Your task to perform on an android device: Go to privacy settings Image 0: 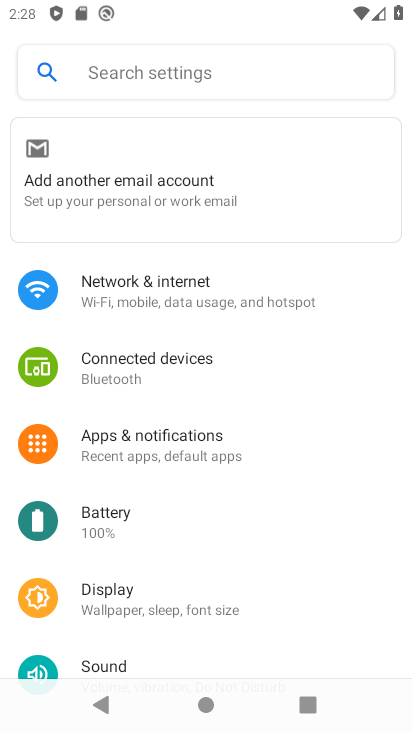
Step 0: press home button
Your task to perform on an android device: Go to privacy settings Image 1: 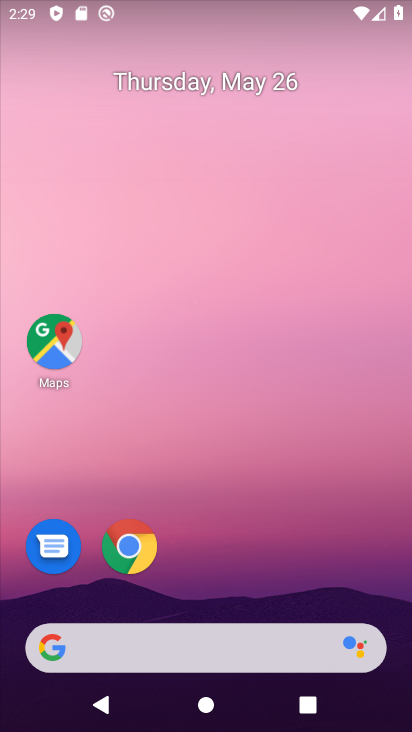
Step 1: click (120, 545)
Your task to perform on an android device: Go to privacy settings Image 2: 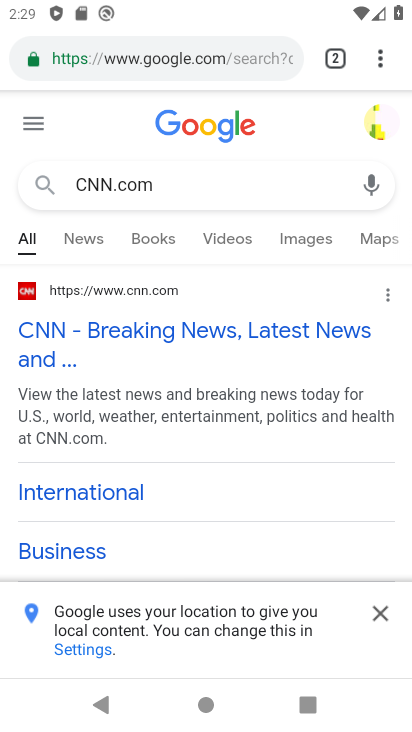
Step 2: click (379, 53)
Your task to perform on an android device: Go to privacy settings Image 3: 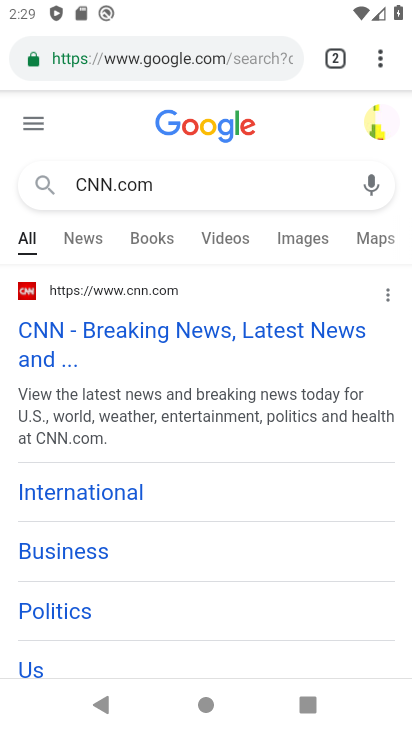
Step 3: click (379, 53)
Your task to perform on an android device: Go to privacy settings Image 4: 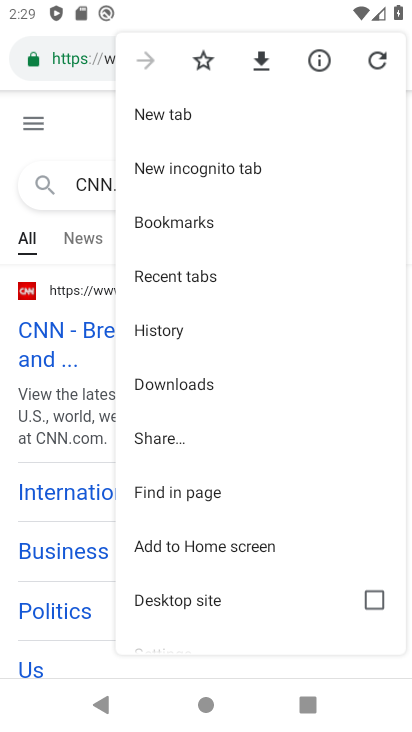
Step 4: drag from (285, 626) to (301, 368)
Your task to perform on an android device: Go to privacy settings Image 5: 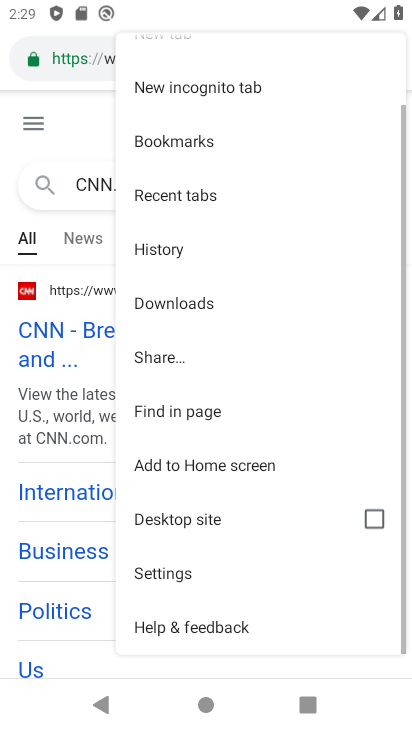
Step 5: click (173, 572)
Your task to perform on an android device: Go to privacy settings Image 6: 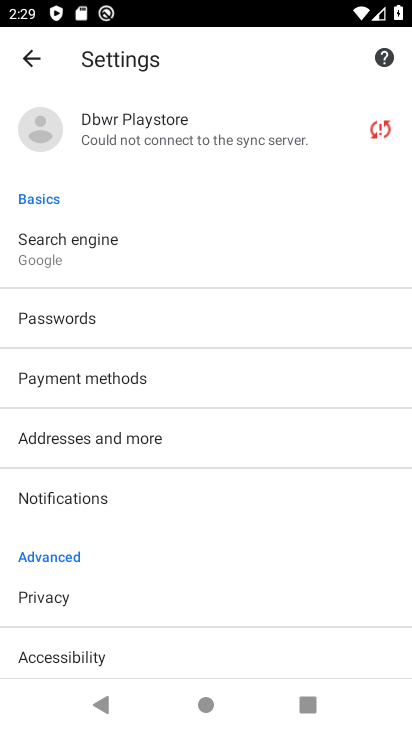
Step 6: click (45, 597)
Your task to perform on an android device: Go to privacy settings Image 7: 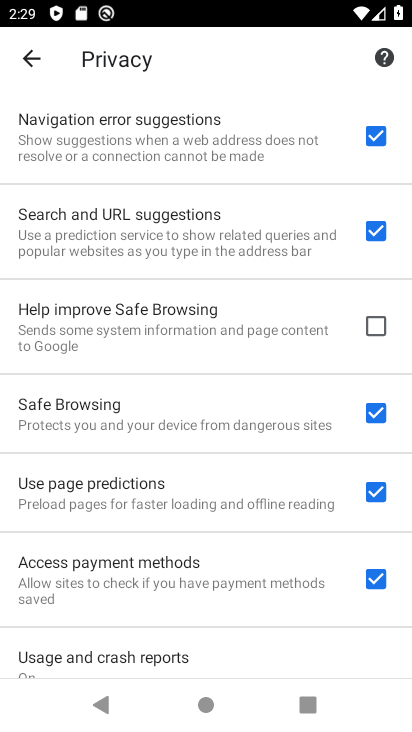
Step 7: task complete